Your task to perform on an android device: Show me productivity apps on the Play Store Image 0: 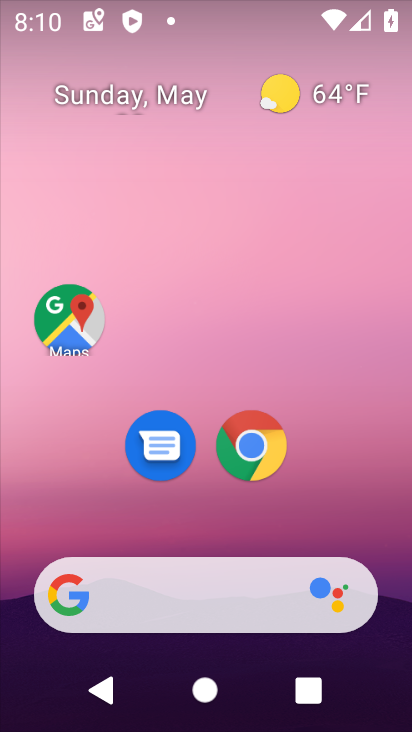
Step 0: click (227, 1)
Your task to perform on an android device: Show me productivity apps on the Play Store Image 1: 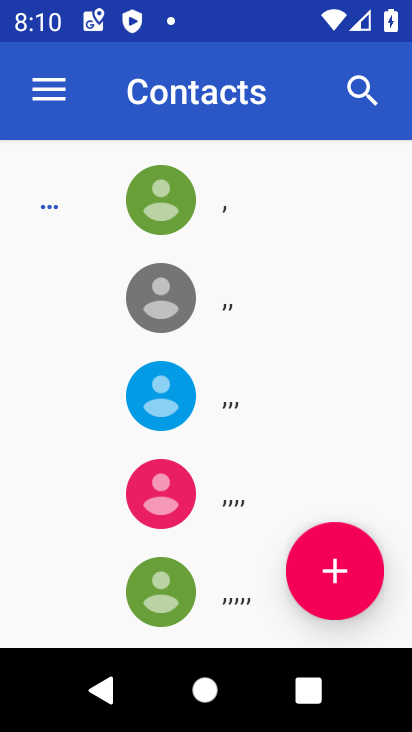
Step 1: drag from (212, 588) to (239, 97)
Your task to perform on an android device: Show me productivity apps on the Play Store Image 2: 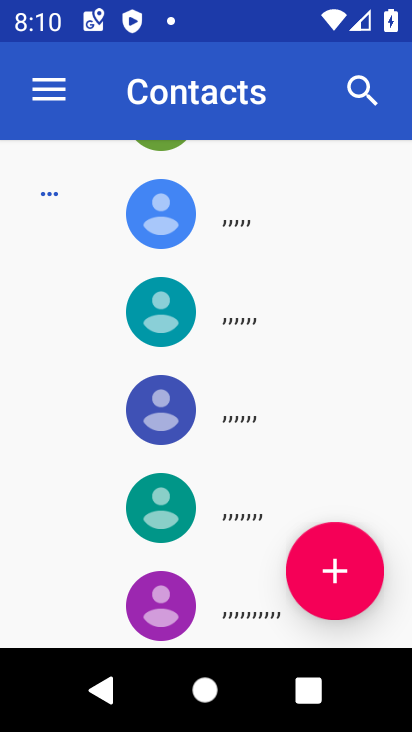
Step 2: drag from (248, 585) to (297, 144)
Your task to perform on an android device: Show me productivity apps on the Play Store Image 3: 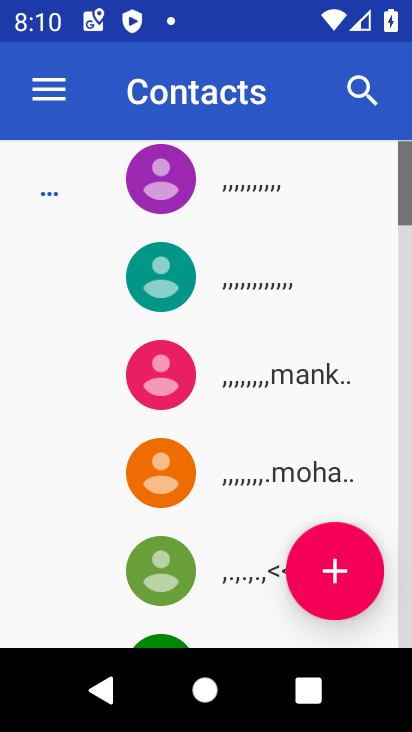
Step 3: press home button
Your task to perform on an android device: Show me productivity apps on the Play Store Image 4: 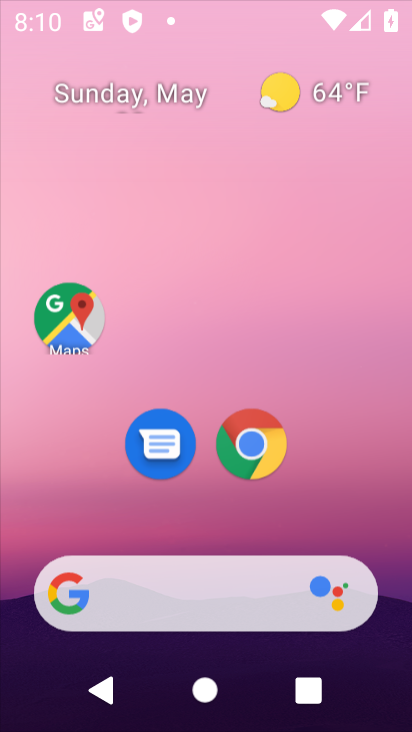
Step 4: drag from (204, 600) to (283, 99)
Your task to perform on an android device: Show me productivity apps on the Play Store Image 5: 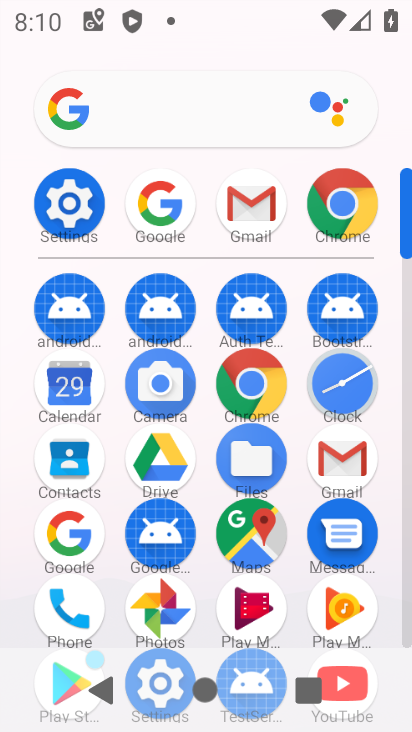
Step 5: drag from (202, 568) to (202, 287)
Your task to perform on an android device: Show me productivity apps on the Play Store Image 6: 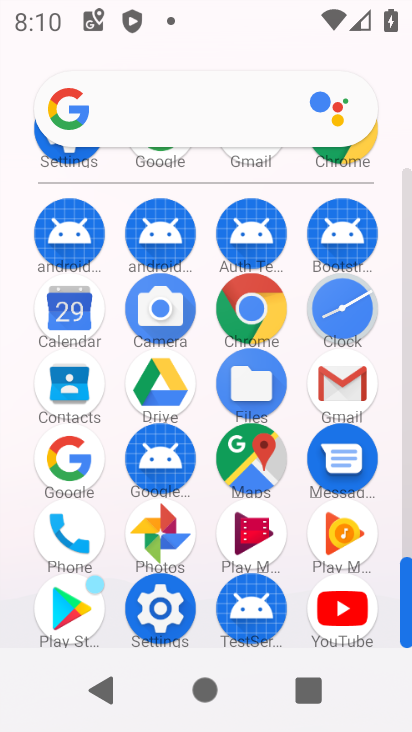
Step 6: click (66, 599)
Your task to perform on an android device: Show me productivity apps on the Play Store Image 7: 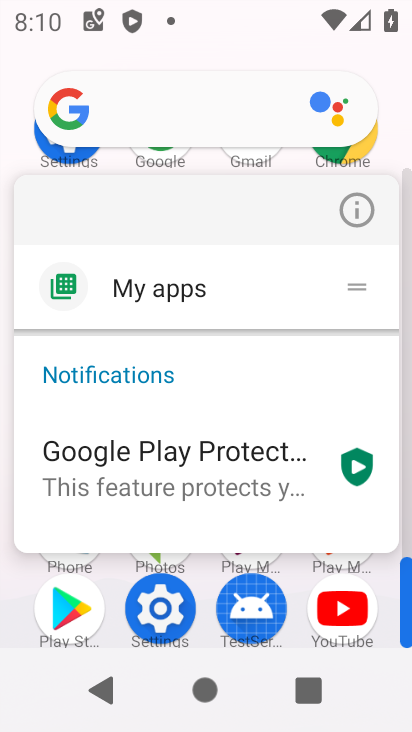
Step 7: click (354, 217)
Your task to perform on an android device: Show me productivity apps on the Play Store Image 8: 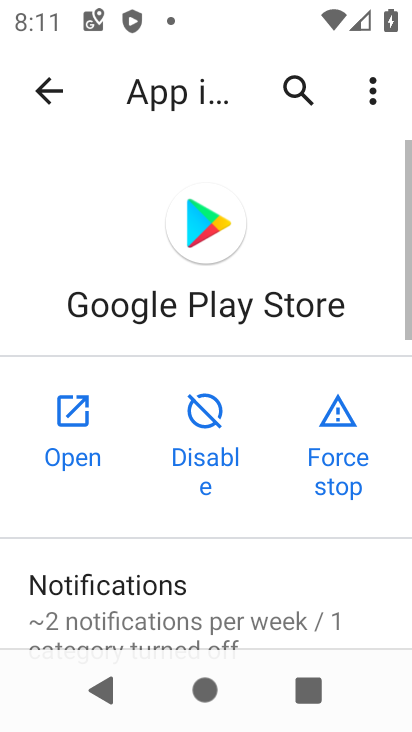
Step 8: click (61, 411)
Your task to perform on an android device: Show me productivity apps on the Play Store Image 9: 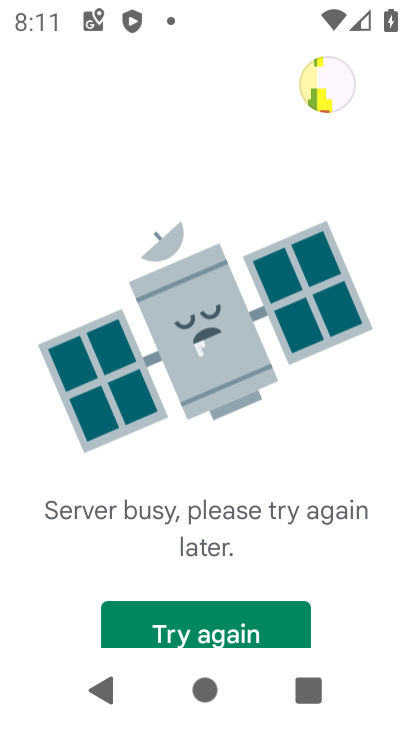
Step 9: click (229, 647)
Your task to perform on an android device: Show me productivity apps on the Play Store Image 10: 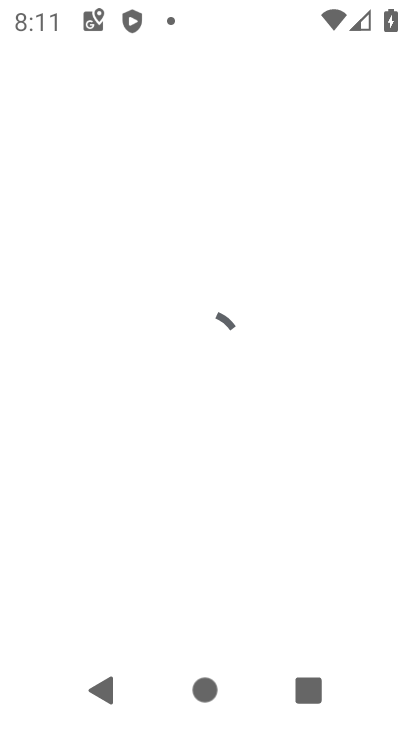
Step 10: click (223, 618)
Your task to perform on an android device: Show me productivity apps on the Play Store Image 11: 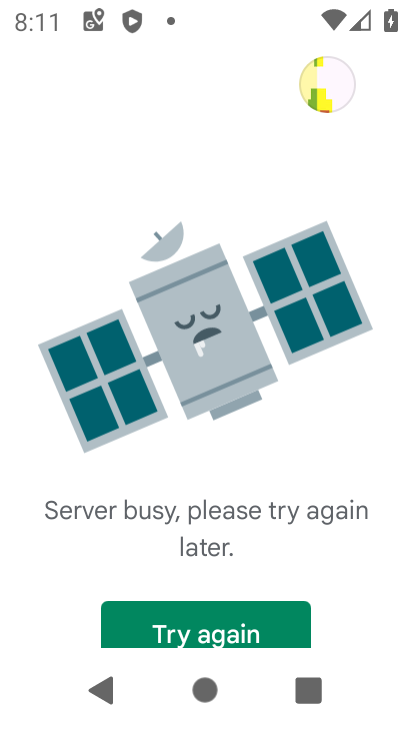
Step 11: click (222, 617)
Your task to perform on an android device: Show me productivity apps on the Play Store Image 12: 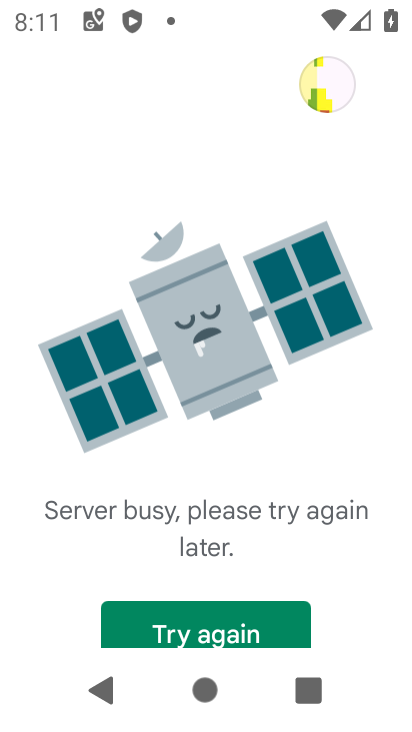
Step 12: task complete